Your task to perform on an android device: Open Amazon Image 0: 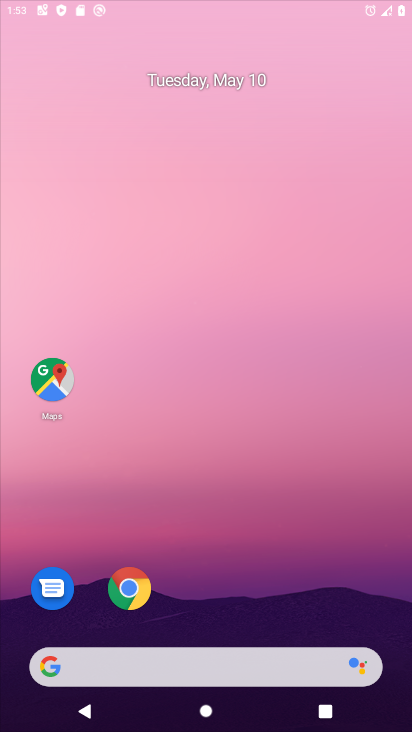
Step 0: drag from (258, 420) to (258, 281)
Your task to perform on an android device: Open Amazon Image 1: 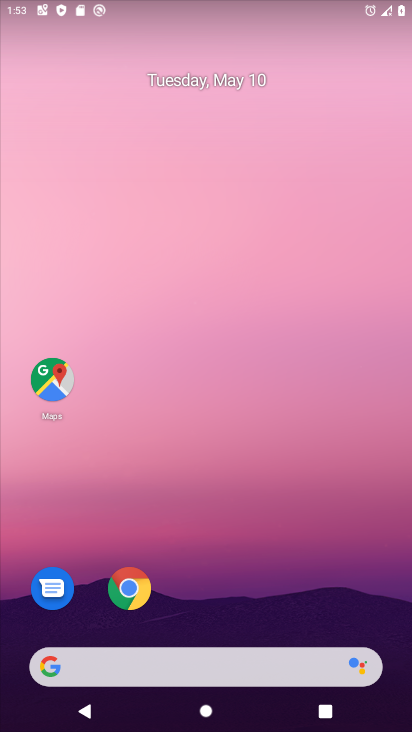
Step 1: drag from (226, 599) to (234, 210)
Your task to perform on an android device: Open Amazon Image 2: 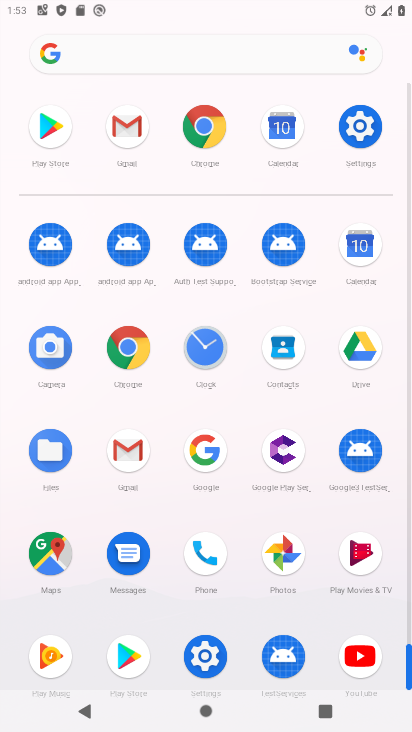
Step 2: click (121, 343)
Your task to perform on an android device: Open Amazon Image 3: 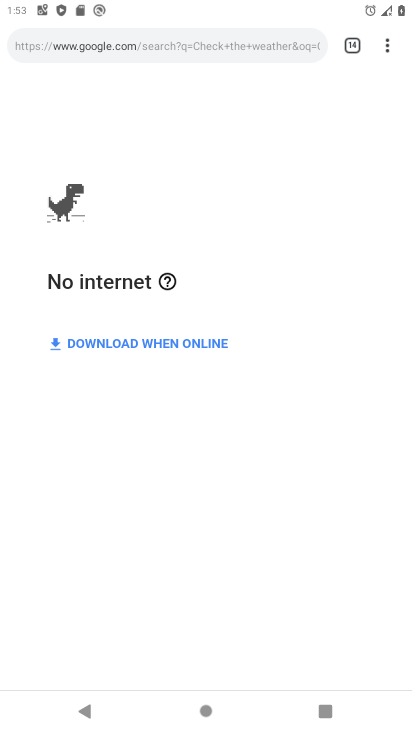
Step 3: click (378, 42)
Your task to perform on an android device: Open Amazon Image 4: 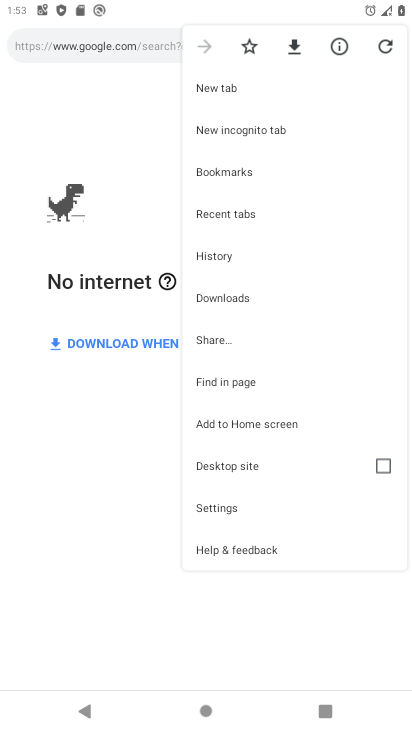
Step 4: click (223, 91)
Your task to perform on an android device: Open Amazon Image 5: 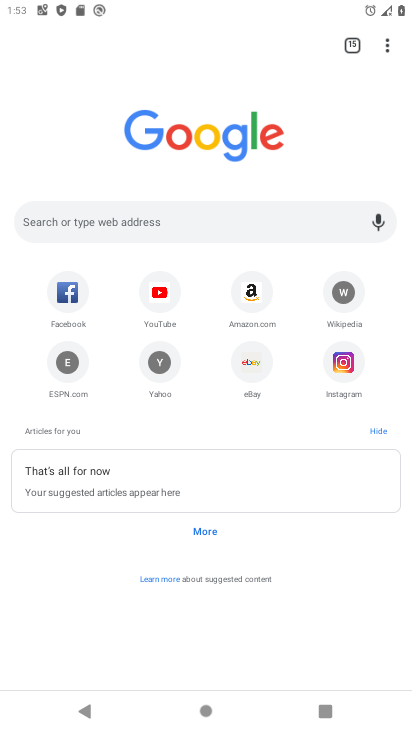
Step 5: click (241, 283)
Your task to perform on an android device: Open Amazon Image 6: 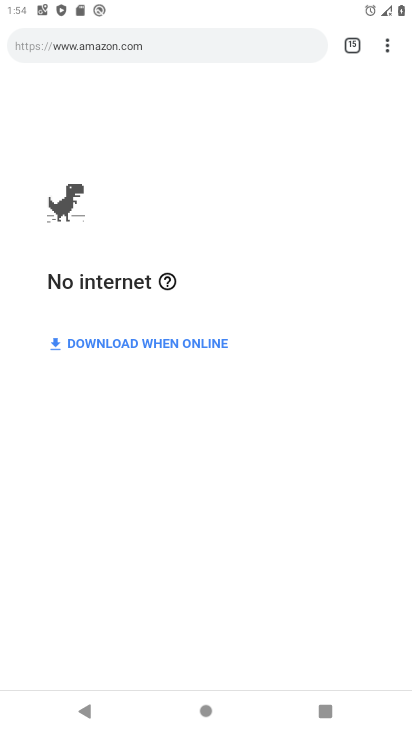
Step 6: task complete